Your task to perform on an android device: delete browsing data in the chrome app Image 0: 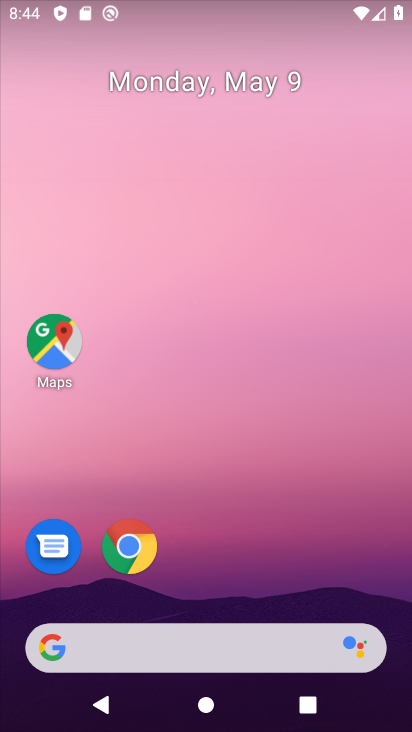
Step 0: click (128, 548)
Your task to perform on an android device: delete browsing data in the chrome app Image 1: 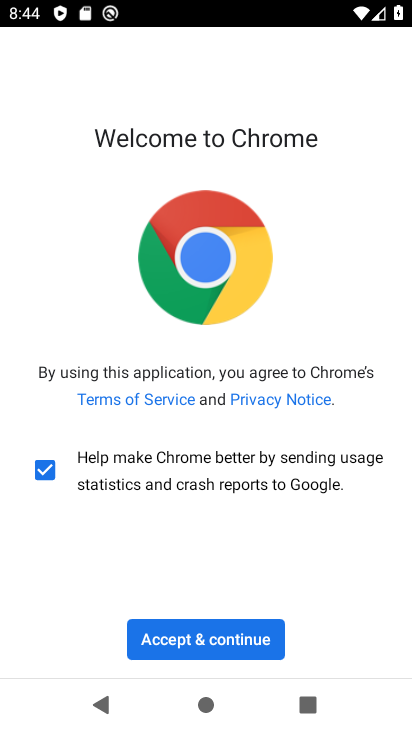
Step 1: click (184, 629)
Your task to perform on an android device: delete browsing data in the chrome app Image 2: 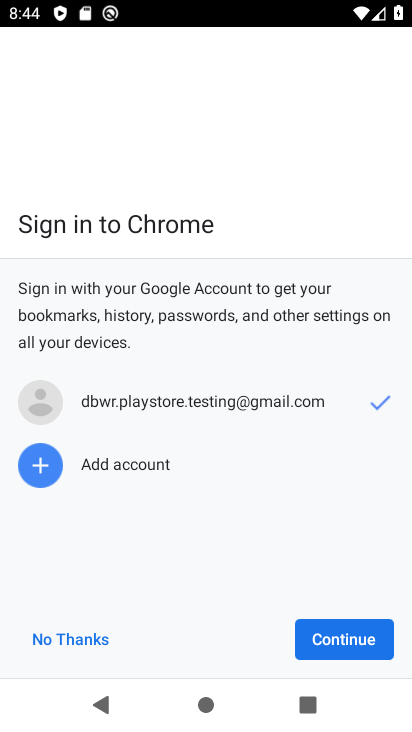
Step 2: click (339, 641)
Your task to perform on an android device: delete browsing data in the chrome app Image 3: 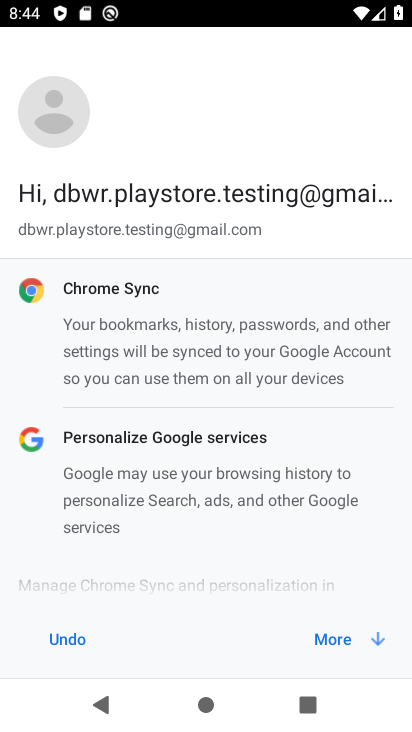
Step 3: click (339, 641)
Your task to perform on an android device: delete browsing data in the chrome app Image 4: 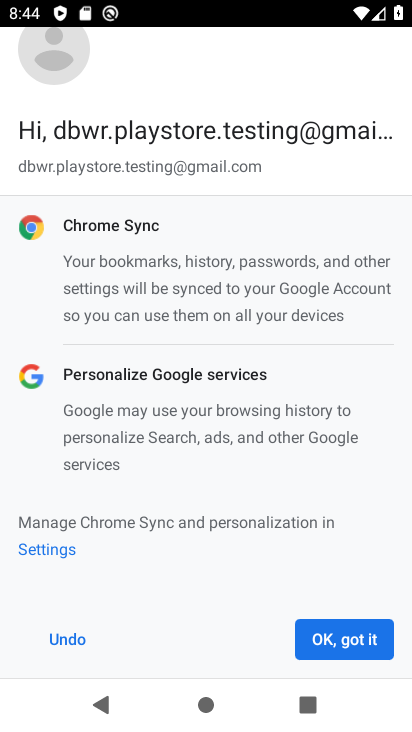
Step 4: click (339, 641)
Your task to perform on an android device: delete browsing data in the chrome app Image 5: 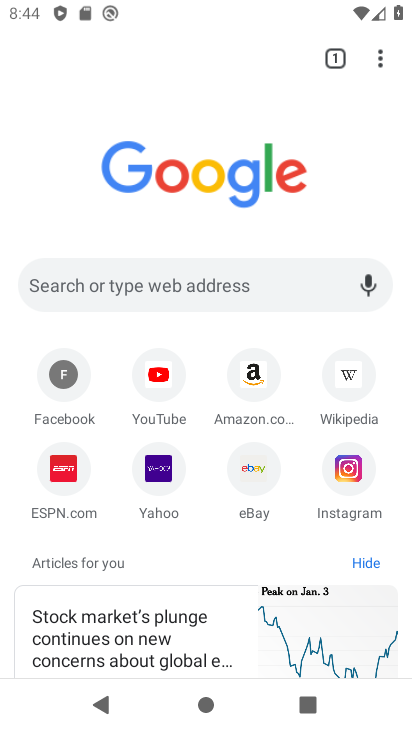
Step 5: click (379, 60)
Your task to perform on an android device: delete browsing data in the chrome app Image 6: 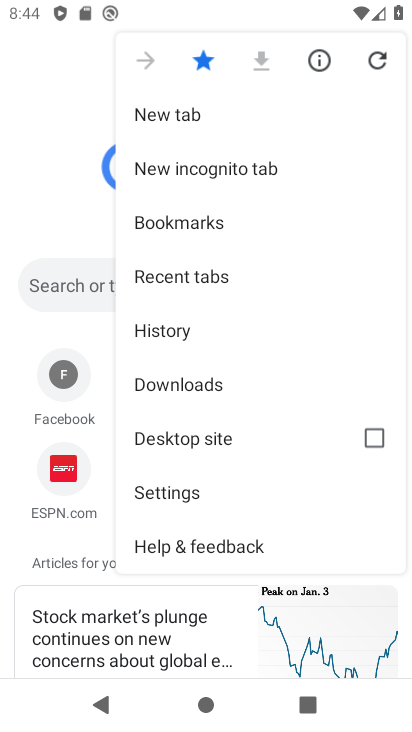
Step 6: click (197, 331)
Your task to perform on an android device: delete browsing data in the chrome app Image 7: 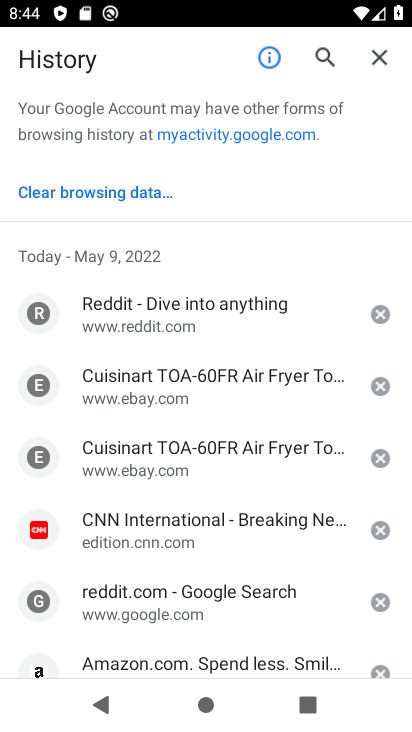
Step 7: click (115, 191)
Your task to perform on an android device: delete browsing data in the chrome app Image 8: 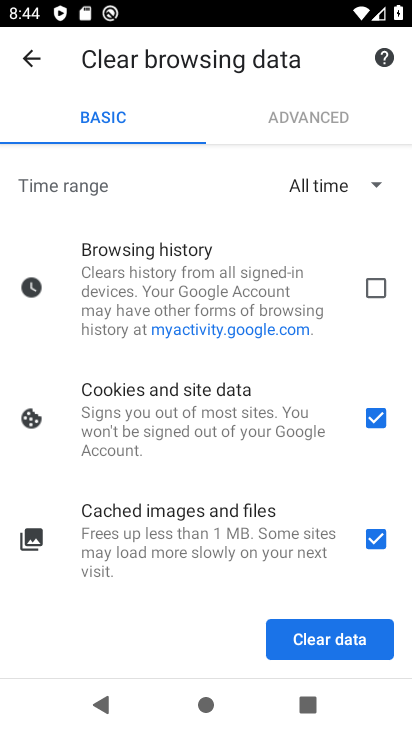
Step 8: click (321, 639)
Your task to perform on an android device: delete browsing data in the chrome app Image 9: 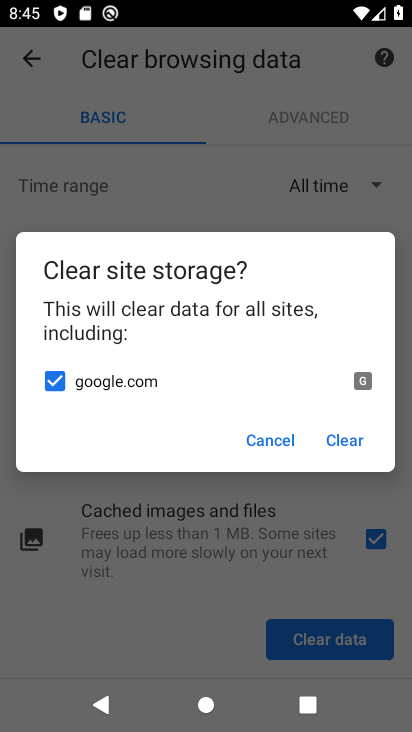
Step 9: click (354, 437)
Your task to perform on an android device: delete browsing data in the chrome app Image 10: 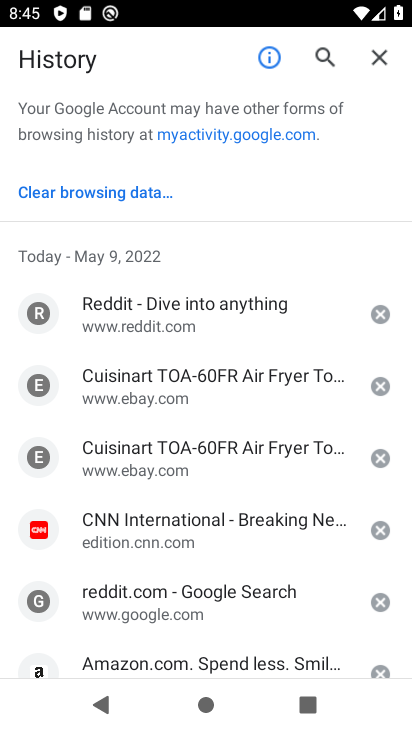
Step 10: task complete